Your task to perform on an android device: Open maps Image 0: 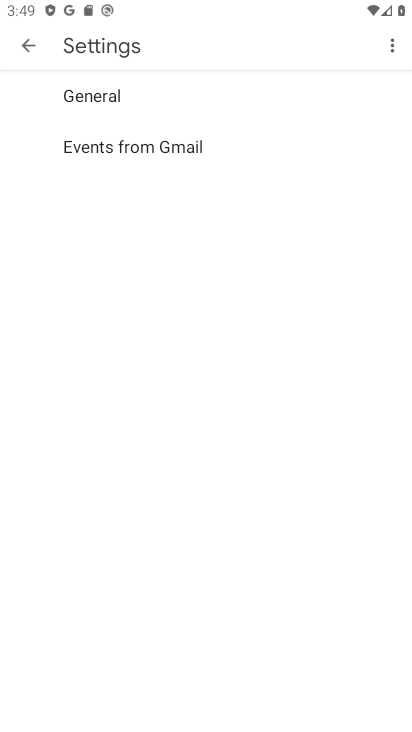
Step 0: press home button
Your task to perform on an android device: Open maps Image 1: 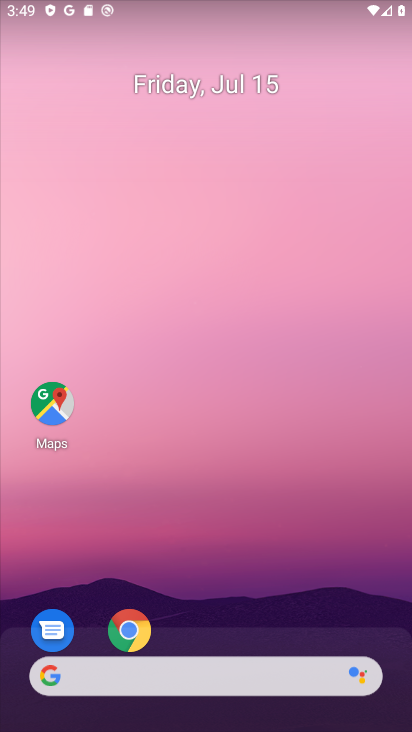
Step 1: drag from (227, 643) to (275, 234)
Your task to perform on an android device: Open maps Image 2: 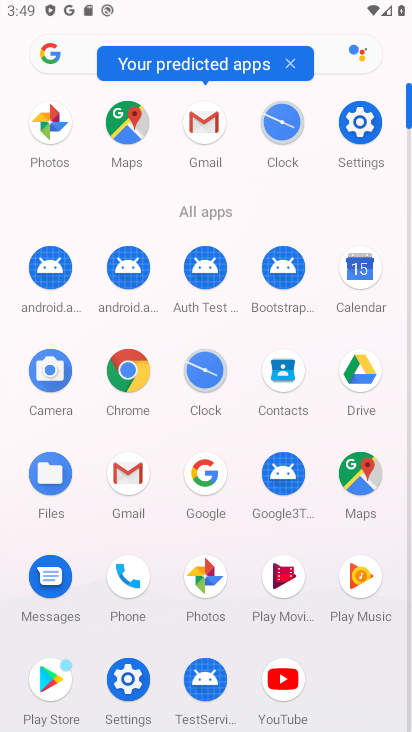
Step 2: click (362, 479)
Your task to perform on an android device: Open maps Image 3: 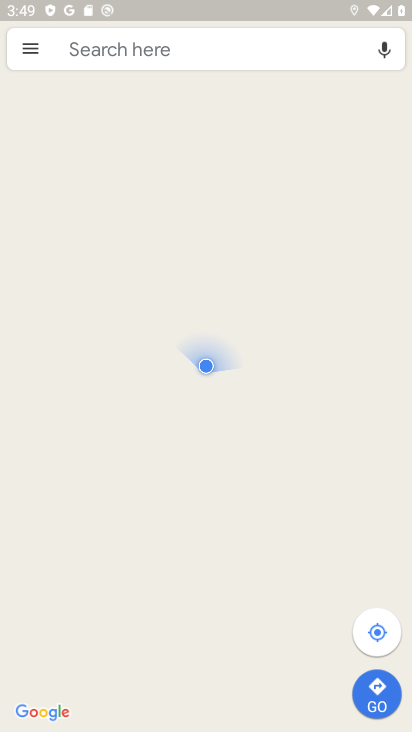
Step 3: task complete